Your task to perform on an android device: delete browsing data in the chrome app Image 0: 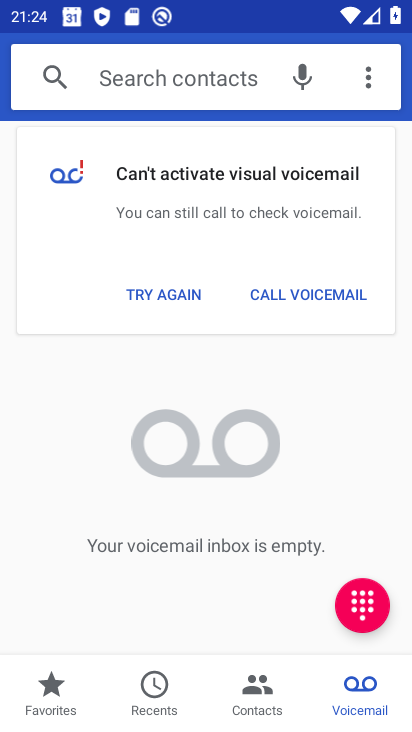
Step 0: press home button
Your task to perform on an android device: delete browsing data in the chrome app Image 1: 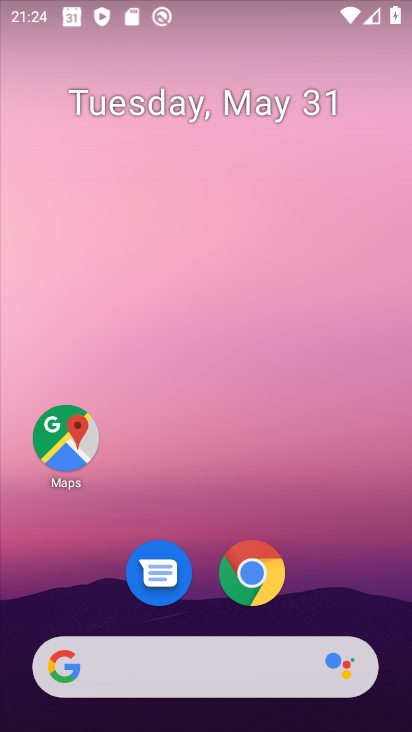
Step 1: click (248, 561)
Your task to perform on an android device: delete browsing data in the chrome app Image 2: 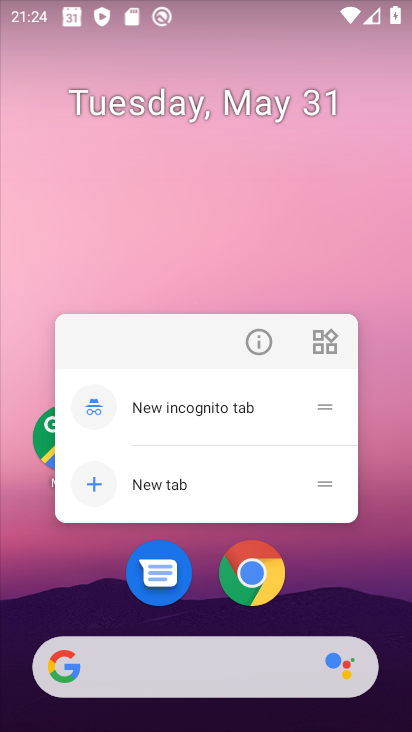
Step 2: click (243, 580)
Your task to perform on an android device: delete browsing data in the chrome app Image 3: 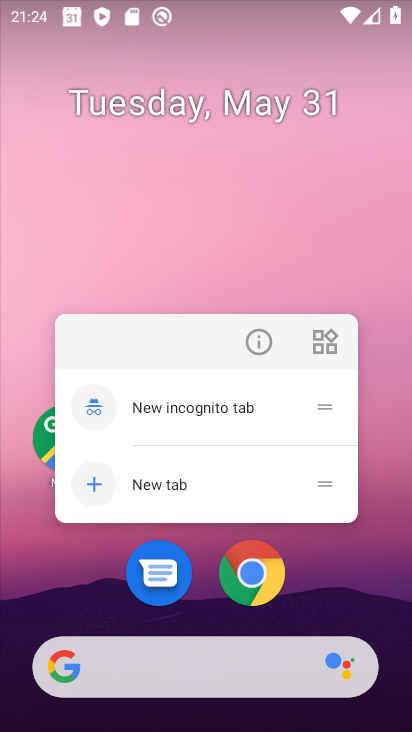
Step 3: click (248, 574)
Your task to perform on an android device: delete browsing data in the chrome app Image 4: 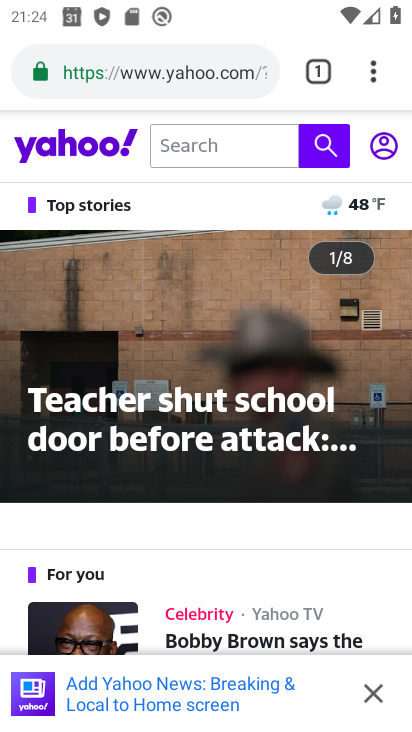
Step 4: drag from (375, 63) to (123, 186)
Your task to perform on an android device: delete browsing data in the chrome app Image 5: 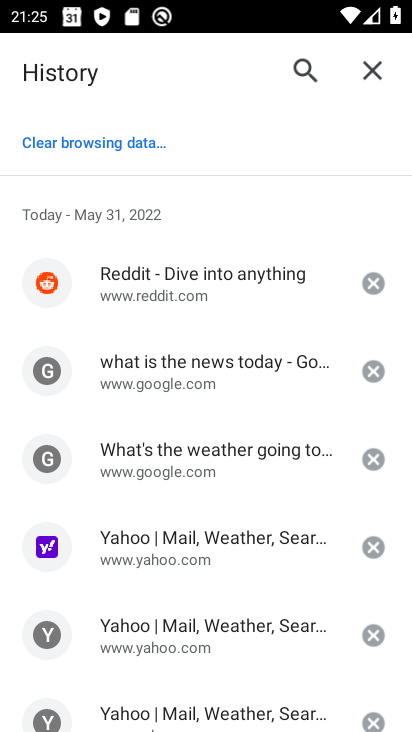
Step 5: click (143, 140)
Your task to perform on an android device: delete browsing data in the chrome app Image 6: 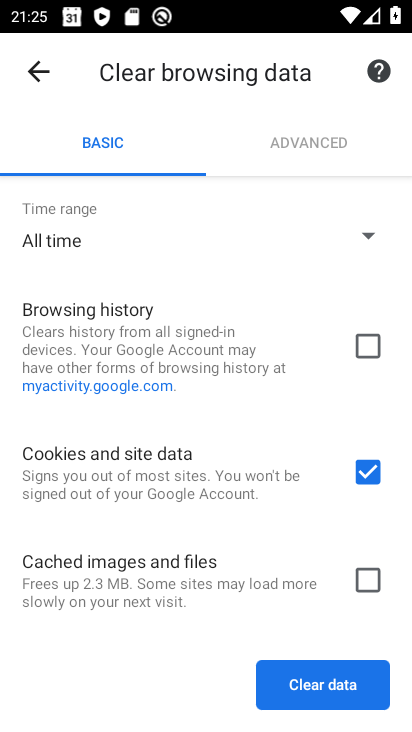
Step 6: click (372, 340)
Your task to perform on an android device: delete browsing data in the chrome app Image 7: 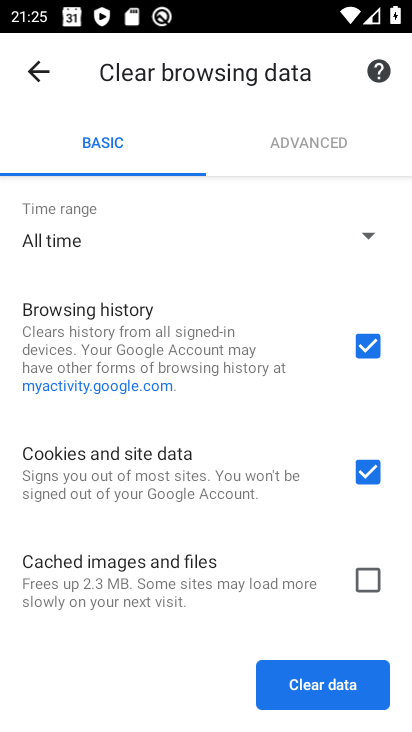
Step 7: click (370, 579)
Your task to perform on an android device: delete browsing data in the chrome app Image 8: 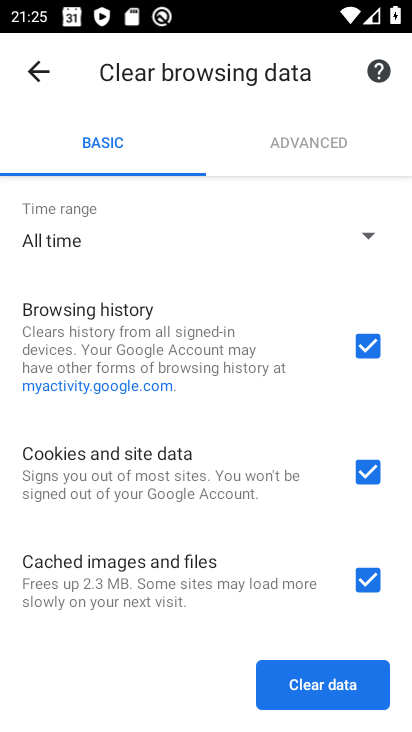
Step 8: click (299, 679)
Your task to perform on an android device: delete browsing data in the chrome app Image 9: 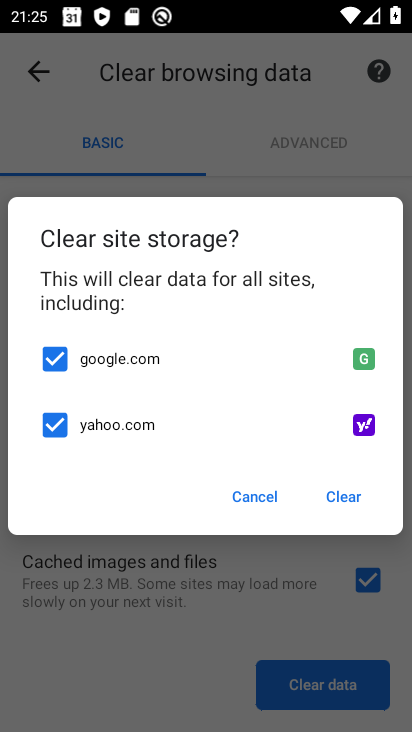
Step 9: click (351, 501)
Your task to perform on an android device: delete browsing data in the chrome app Image 10: 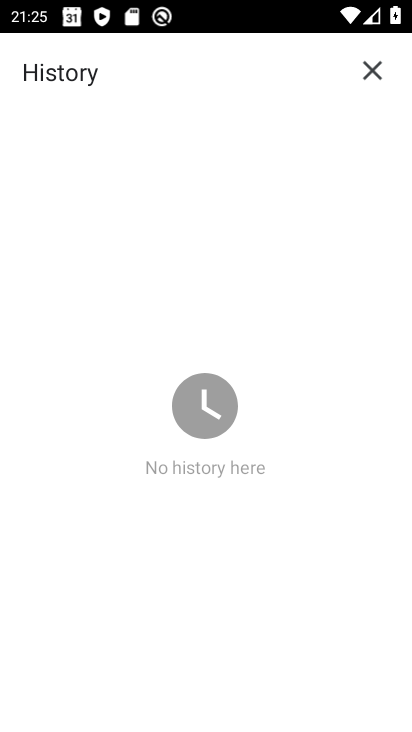
Step 10: task complete